Your task to perform on an android device: Go to location settings Image 0: 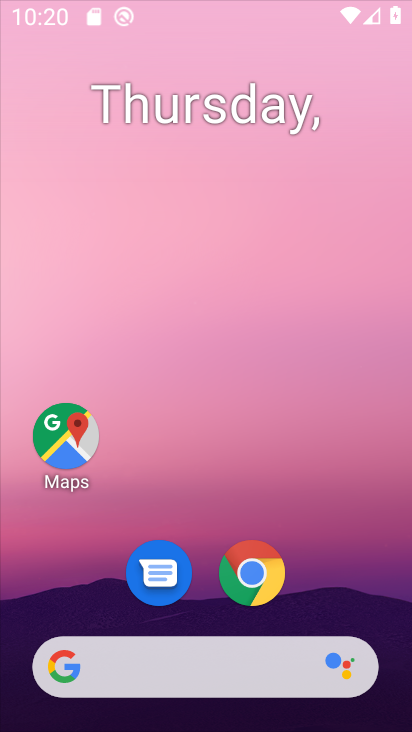
Step 0: click (267, 242)
Your task to perform on an android device: Go to location settings Image 1: 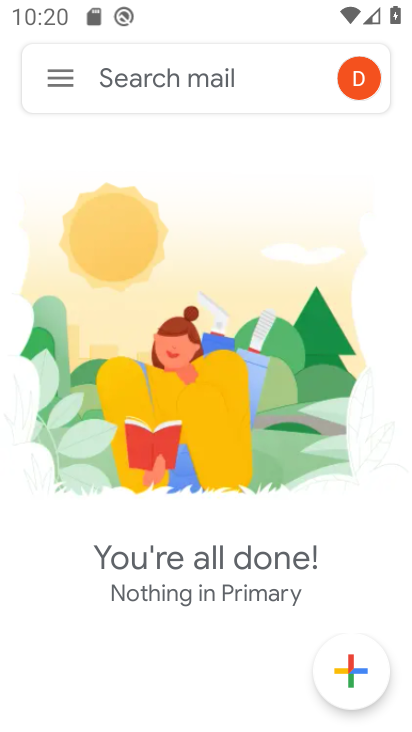
Step 1: press home button
Your task to perform on an android device: Go to location settings Image 2: 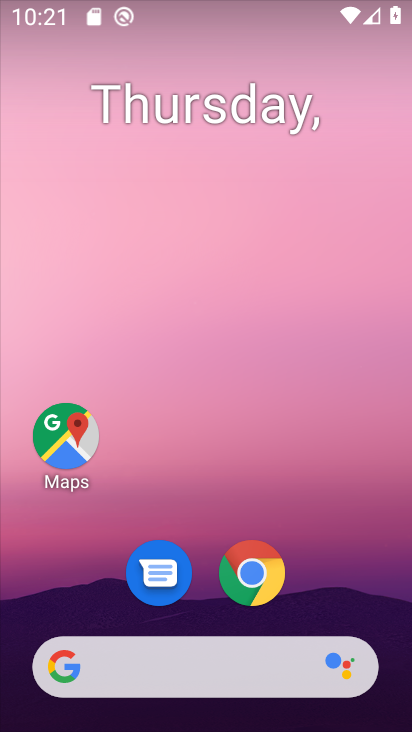
Step 2: drag from (211, 599) to (216, 0)
Your task to perform on an android device: Go to location settings Image 3: 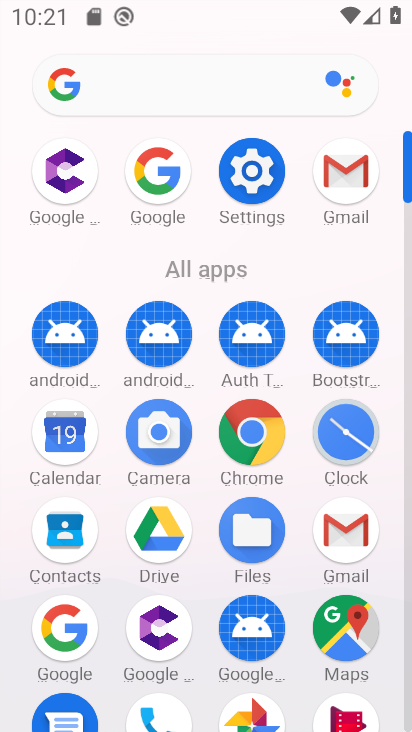
Step 3: click (249, 162)
Your task to perform on an android device: Go to location settings Image 4: 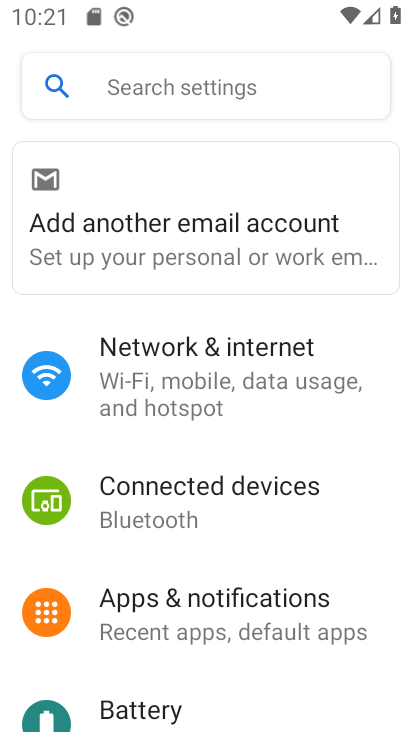
Step 4: drag from (296, 612) to (231, 130)
Your task to perform on an android device: Go to location settings Image 5: 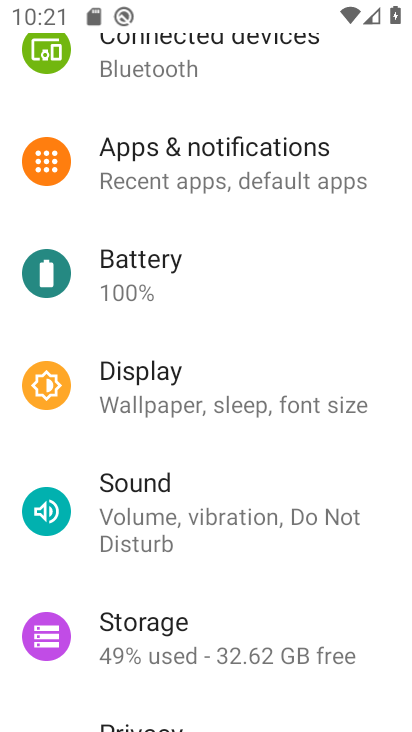
Step 5: drag from (207, 602) to (203, 177)
Your task to perform on an android device: Go to location settings Image 6: 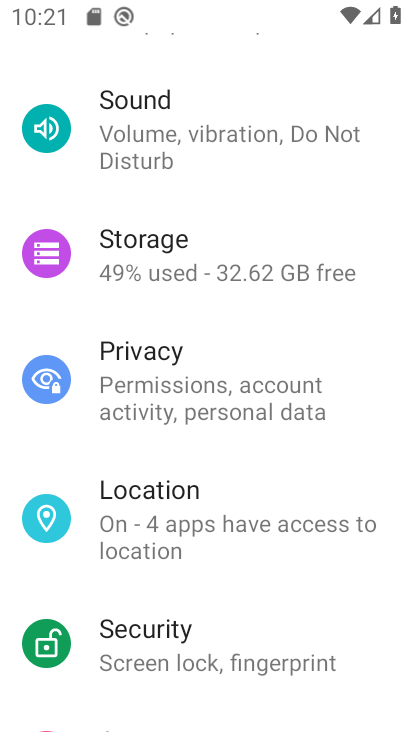
Step 6: click (205, 524)
Your task to perform on an android device: Go to location settings Image 7: 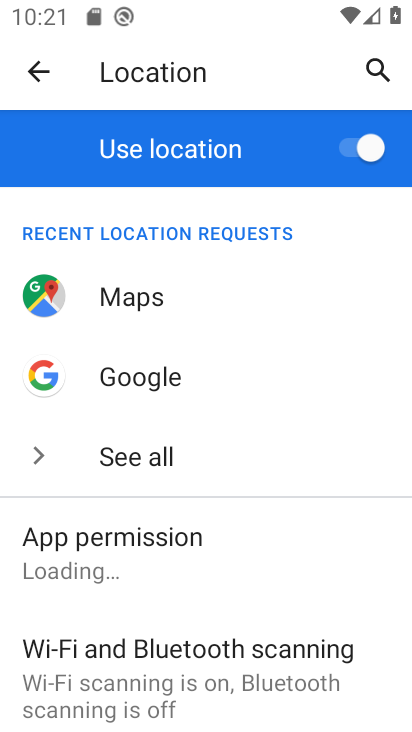
Step 7: task complete